Your task to perform on an android device: turn on the 24-hour format for clock Image 0: 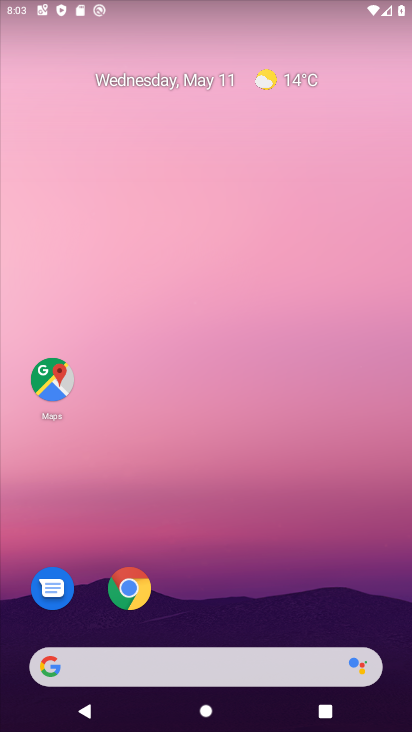
Step 0: drag from (206, 641) to (277, 156)
Your task to perform on an android device: turn on the 24-hour format for clock Image 1: 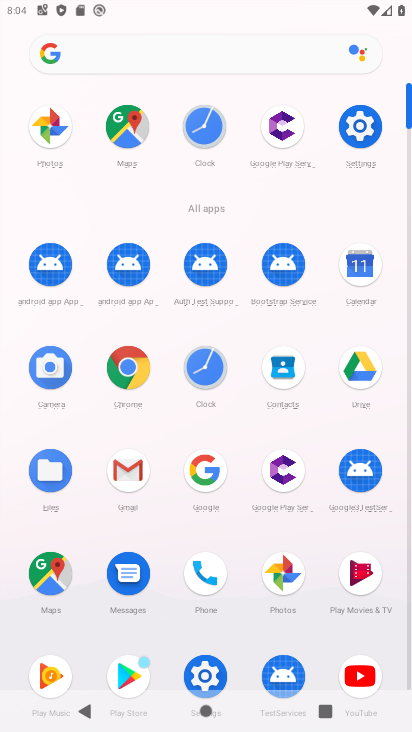
Step 1: click (214, 380)
Your task to perform on an android device: turn on the 24-hour format for clock Image 2: 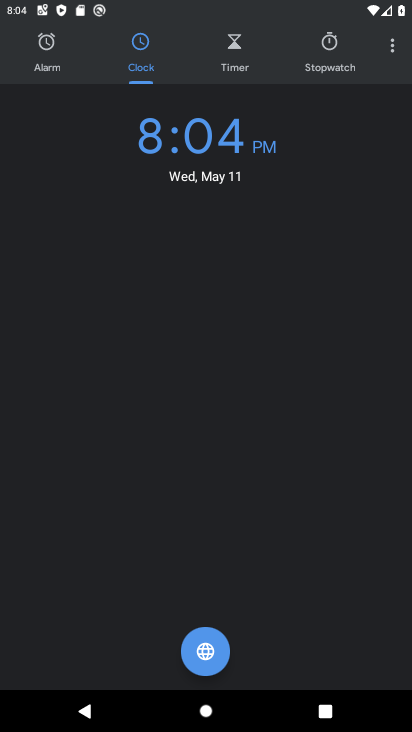
Step 2: click (389, 43)
Your task to perform on an android device: turn on the 24-hour format for clock Image 3: 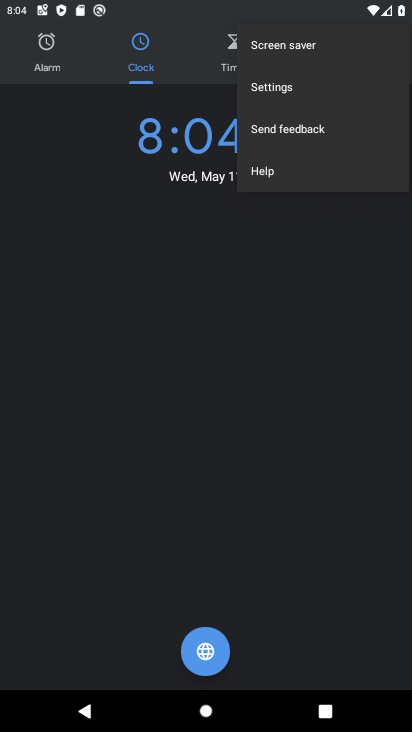
Step 3: click (303, 88)
Your task to perform on an android device: turn on the 24-hour format for clock Image 4: 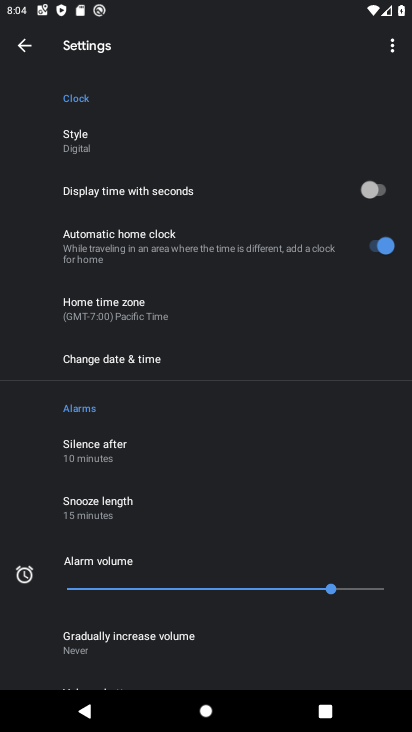
Step 4: drag from (167, 575) to (250, 186)
Your task to perform on an android device: turn on the 24-hour format for clock Image 5: 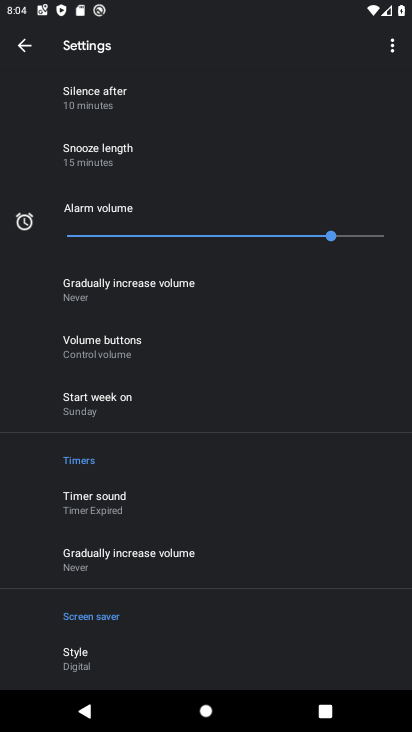
Step 5: drag from (111, 634) to (211, 251)
Your task to perform on an android device: turn on the 24-hour format for clock Image 6: 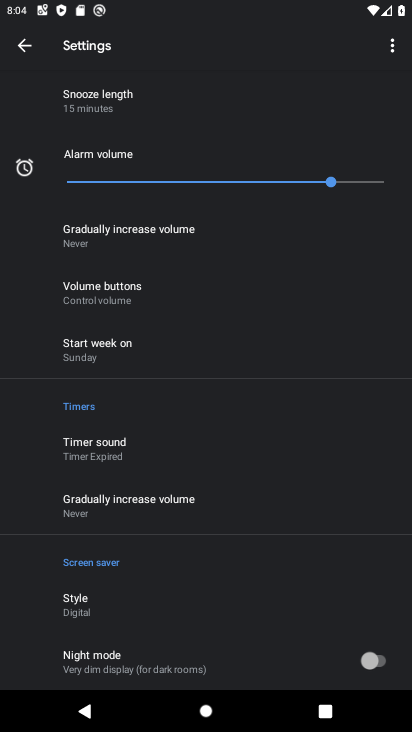
Step 6: drag from (231, 146) to (218, 682)
Your task to perform on an android device: turn on the 24-hour format for clock Image 7: 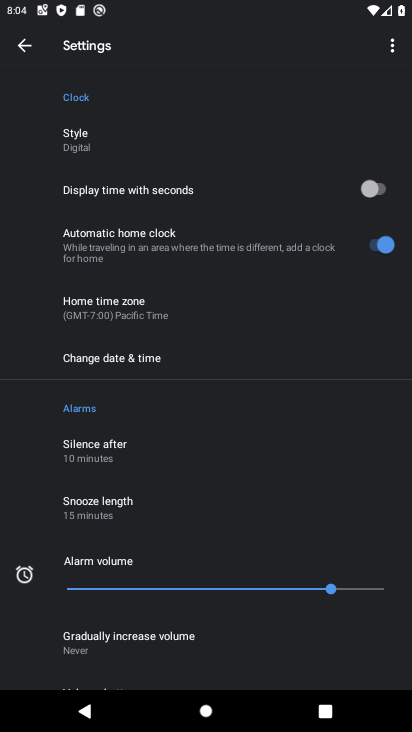
Step 7: click (180, 362)
Your task to perform on an android device: turn on the 24-hour format for clock Image 8: 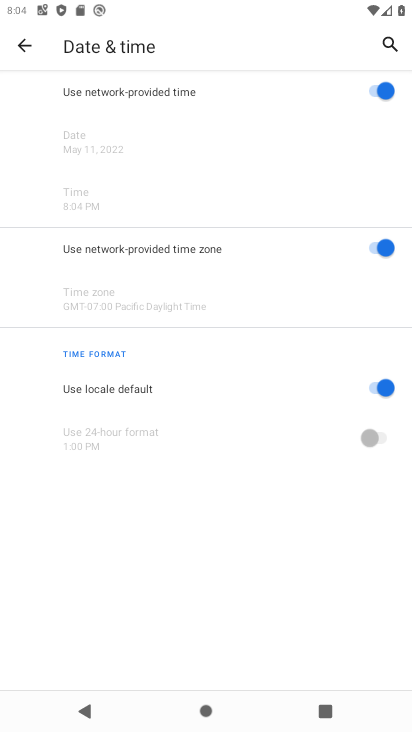
Step 8: click (378, 382)
Your task to perform on an android device: turn on the 24-hour format for clock Image 9: 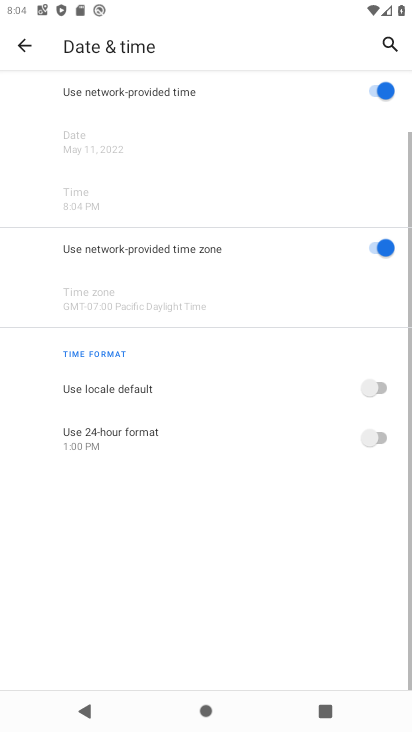
Step 9: click (381, 435)
Your task to perform on an android device: turn on the 24-hour format for clock Image 10: 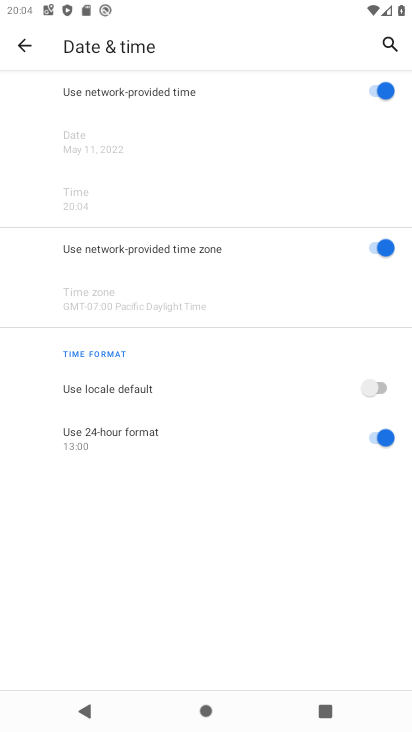
Step 10: task complete